Your task to perform on an android device: add a contact Image 0: 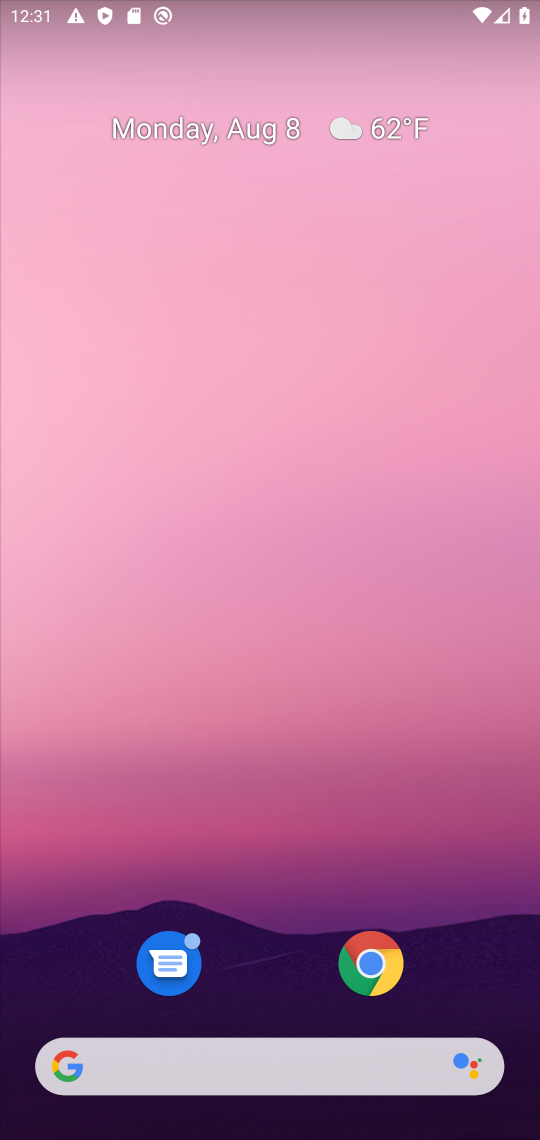
Step 0: drag from (494, 957) to (242, 125)
Your task to perform on an android device: add a contact Image 1: 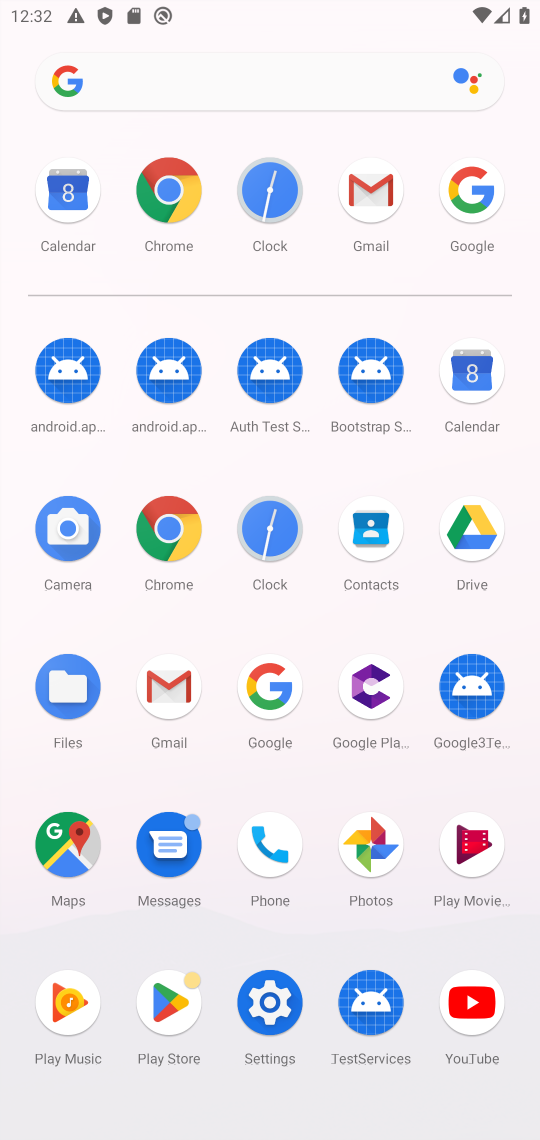
Step 1: click (374, 546)
Your task to perform on an android device: add a contact Image 2: 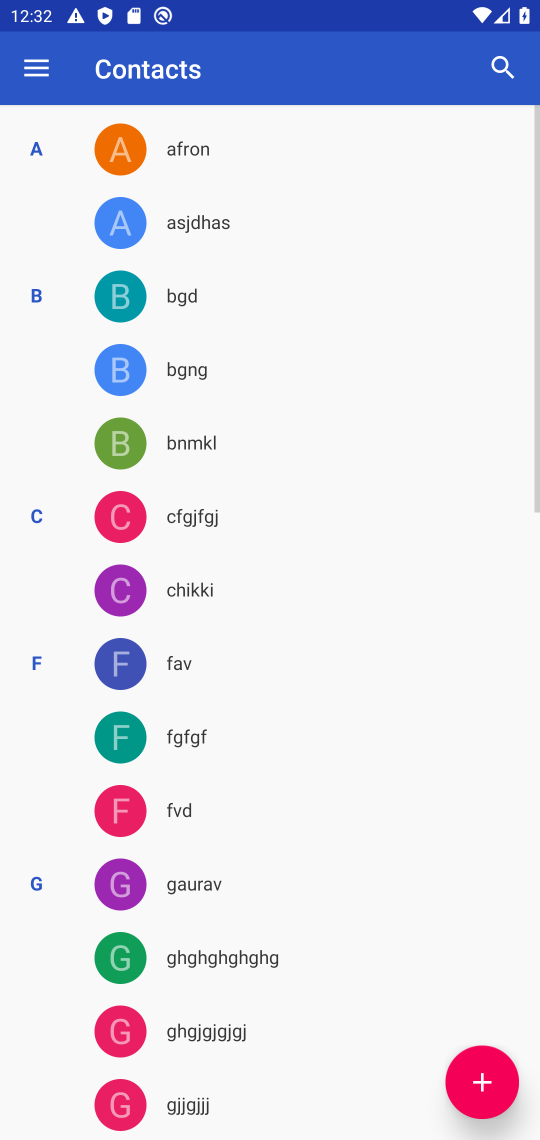
Step 2: click (488, 1086)
Your task to perform on an android device: add a contact Image 3: 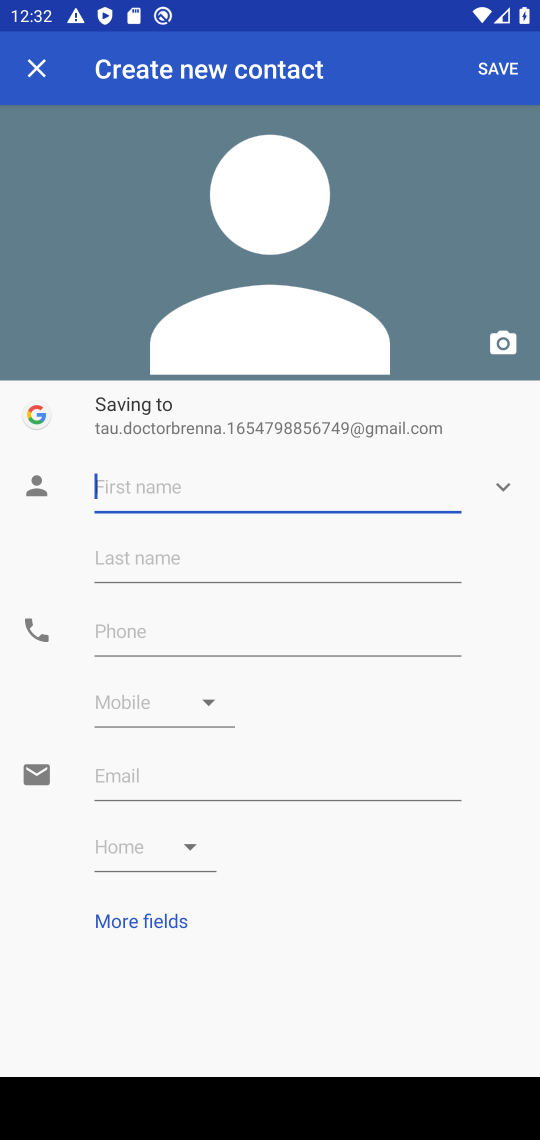
Step 3: type "trisha"
Your task to perform on an android device: add a contact Image 4: 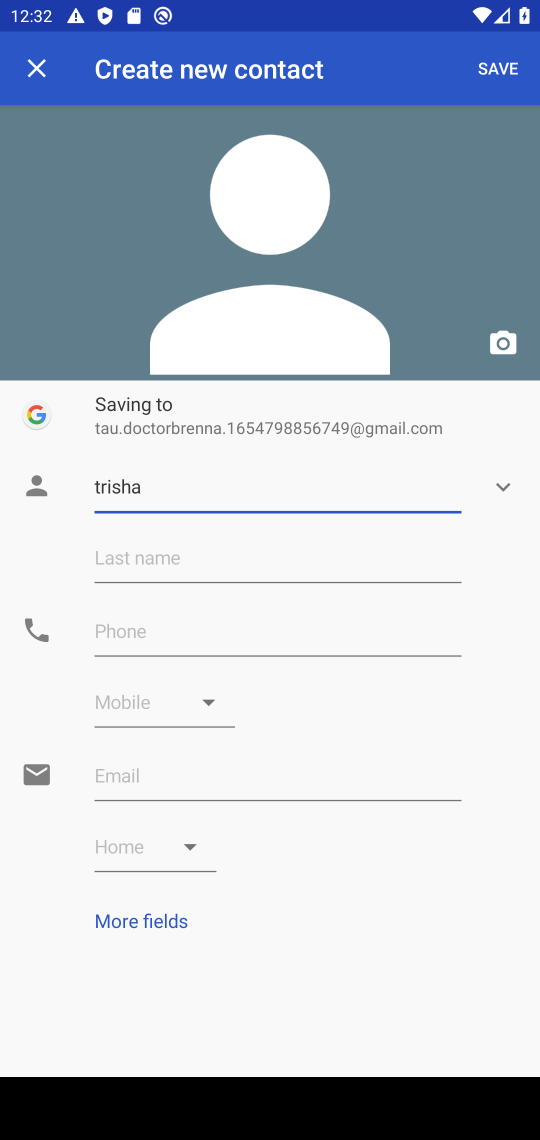
Step 4: click (500, 73)
Your task to perform on an android device: add a contact Image 5: 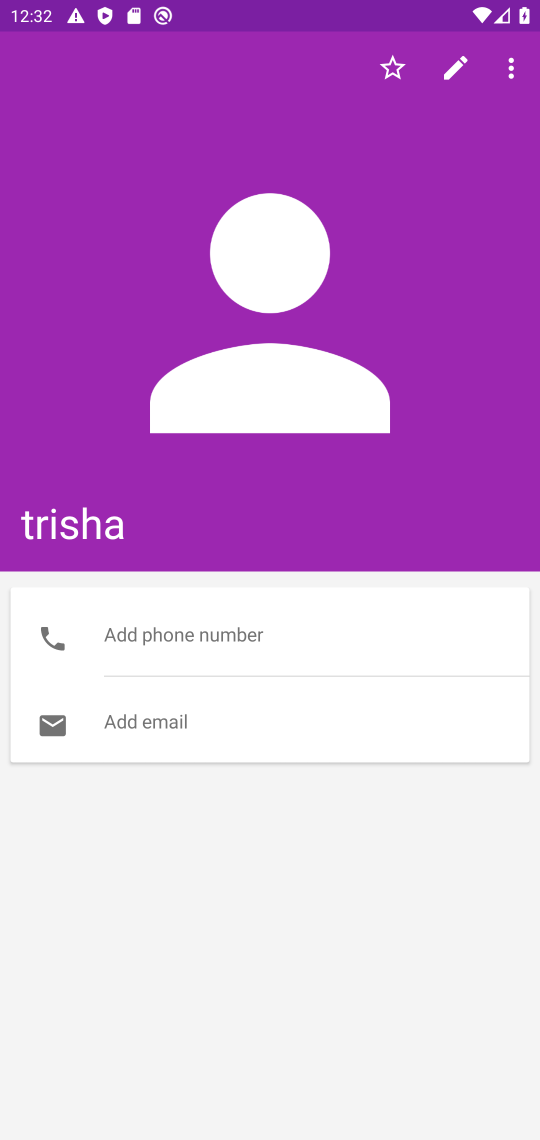
Step 5: task complete